Your task to perform on an android device: open device folders in google photos Image 0: 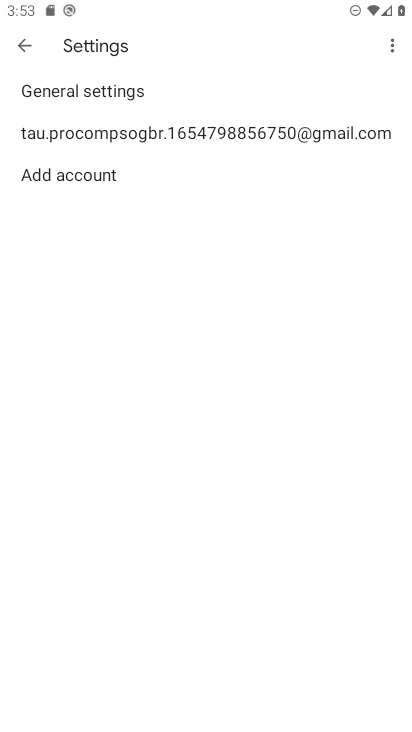
Step 0: press home button
Your task to perform on an android device: open device folders in google photos Image 1: 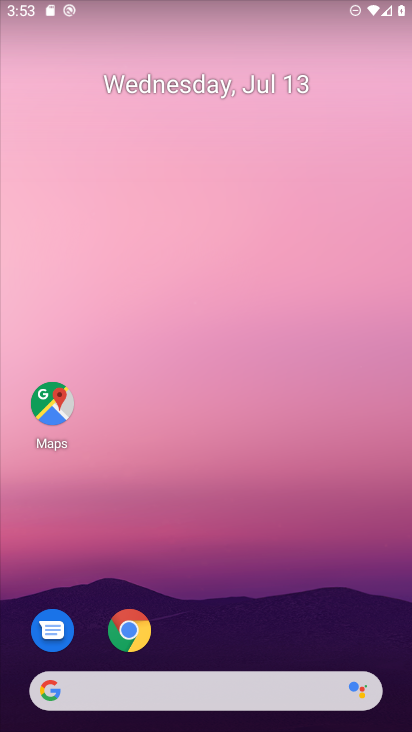
Step 1: drag from (217, 434) to (240, 103)
Your task to perform on an android device: open device folders in google photos Image 2: 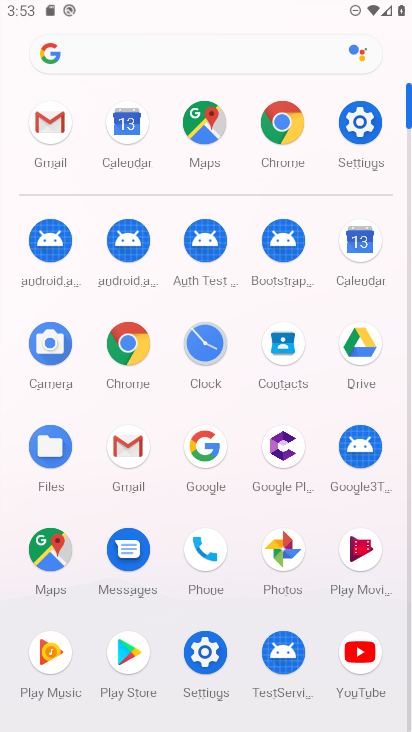
Step 2: click (281, 582)
Your task to perform on an android device: open device folders in google photos Image 3: 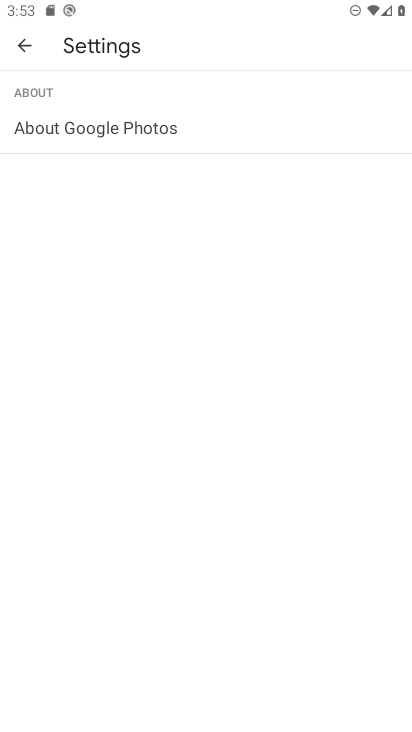
Step 3: click (24, 48)
Your task to perform on an android device: open device folders in google photos Image 4: 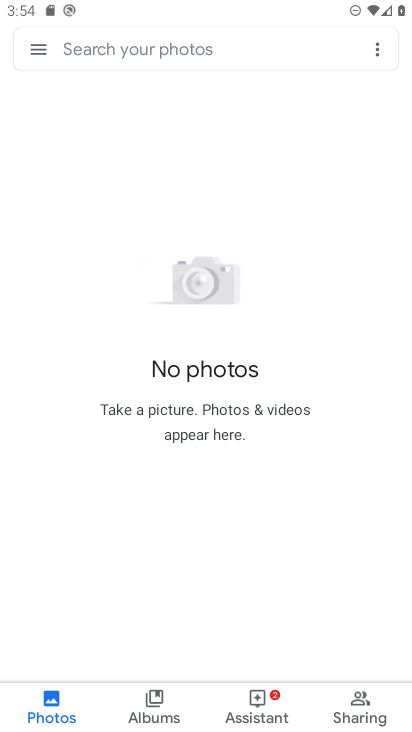
Step 4: click (48, 50)
Your task to perform on an android device: open device folders in google photos Image 5: 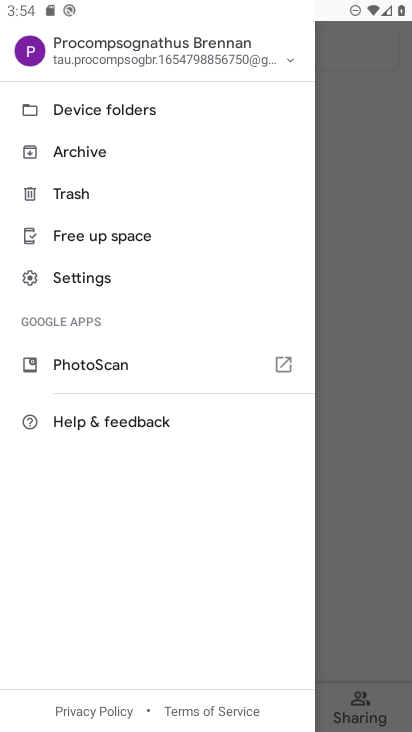
Step 5: click (79, 119)
Your task to perform on an android device: open device folders in google photos Image 6: 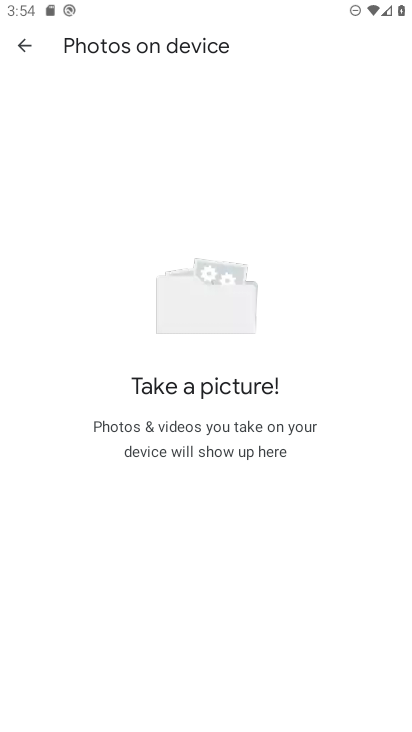
Step 6: task complete